Your task to perform on an android device: toggle javascript in the chrome app Image 0: 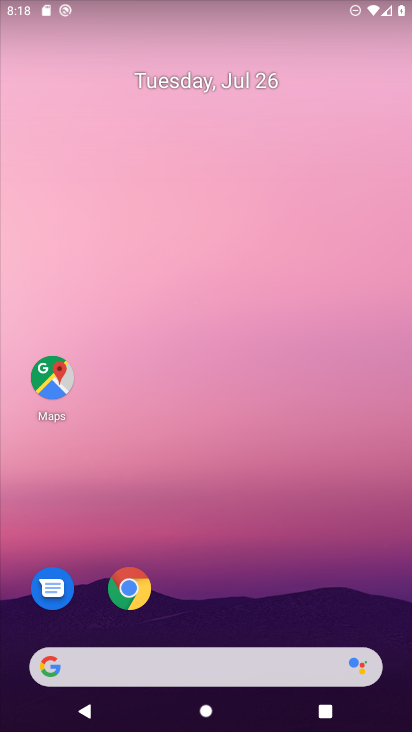
Step 0: click (140, 587)
Your task to perform on an android device: toggle javascript in the chrome app Image 1: 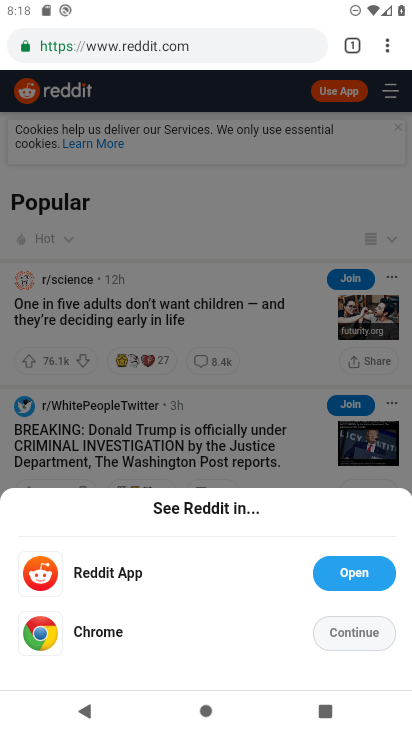
Step 1: click (388, 52)
Your task to perform on an android device: toggle javascript in the chrome app Image 2: 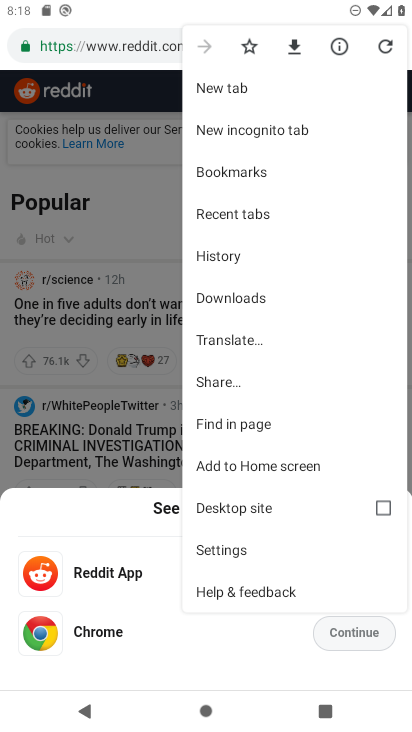
Step 2: click (236, 552)
Your task to perform on an android device: toggle javascript in the chrome app Image 3: 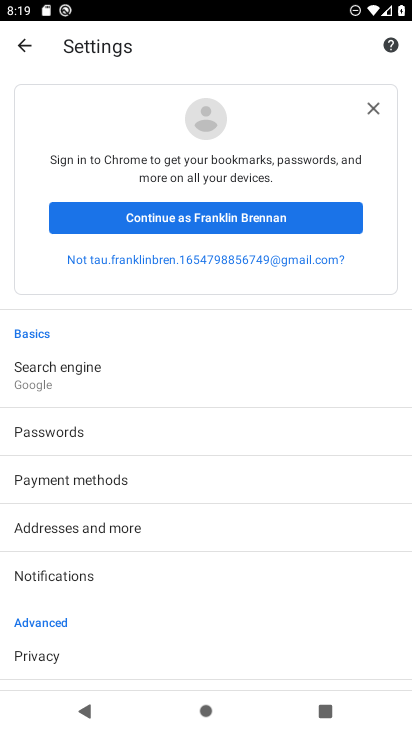
Step 3: drag from (182, 594) to (148, 319)
Your task to perform on an android device: toggle javascript in the chrome app Image 4: 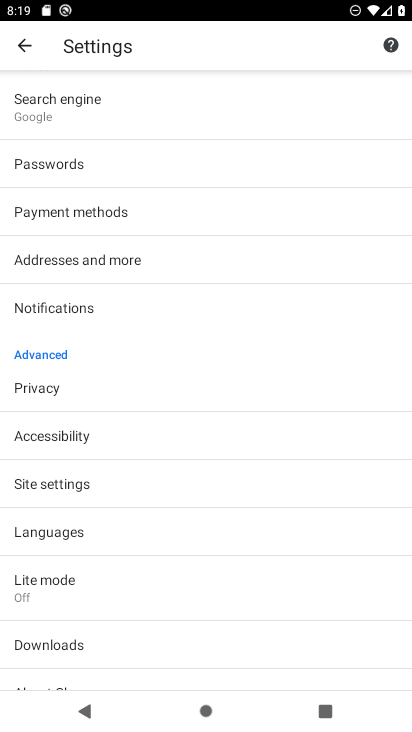
Step 4: click (54, 490)
Your task to perform on an android device: toggle javascript in the chrome app Image 5: 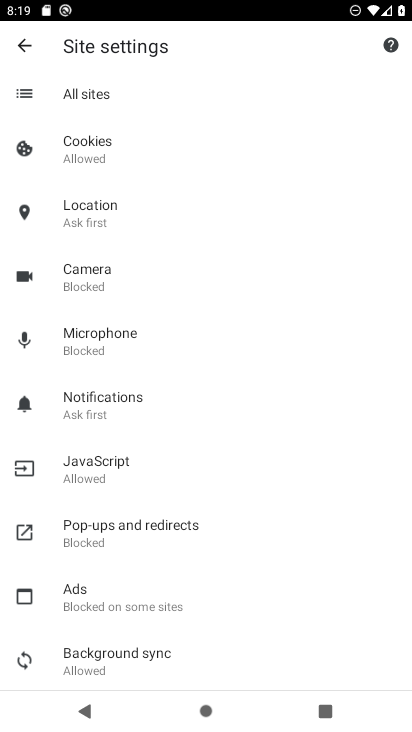
Step 5: click (99, 467)
Your task to perform on an android device: toggle javascript in the chrome app Image 6: 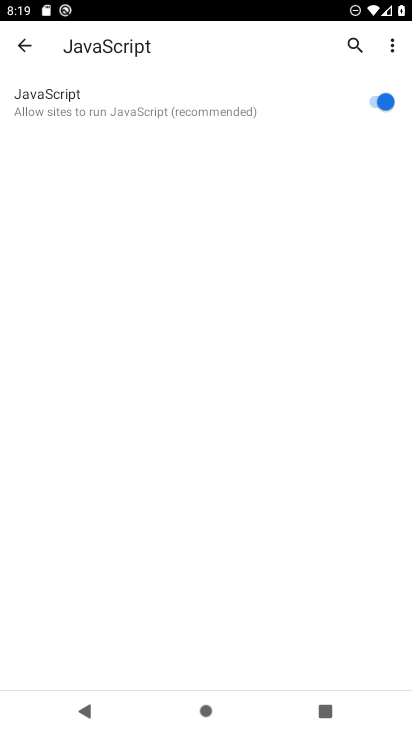
Step 6: click (378, 106)
Your task to perform on an android device: toggle javascript in the chrome app Image 7: 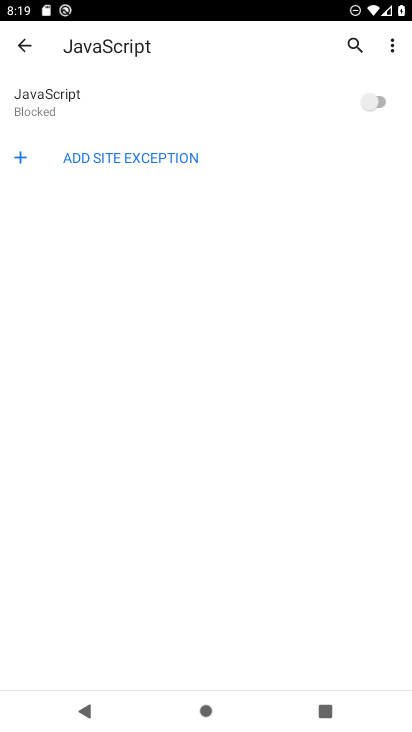
Step 7: task complete